Your task to perform on an android device: set default search engine in the chrome app Image 0: 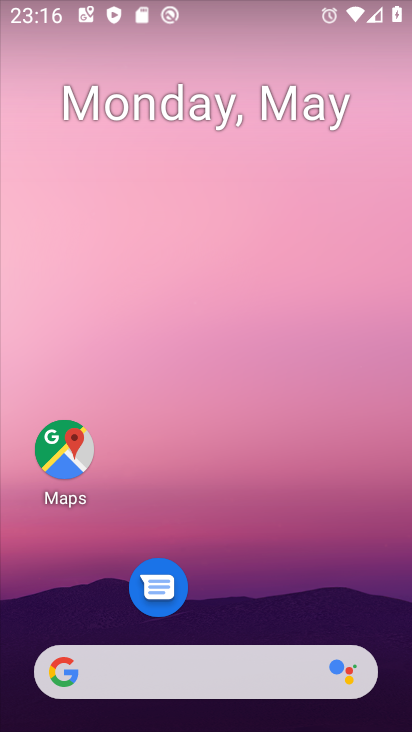
Step 0: drag from (219, 643) to (227, 2)
Your task to perform on an android device: set default search engine in the chrome app Image 1: 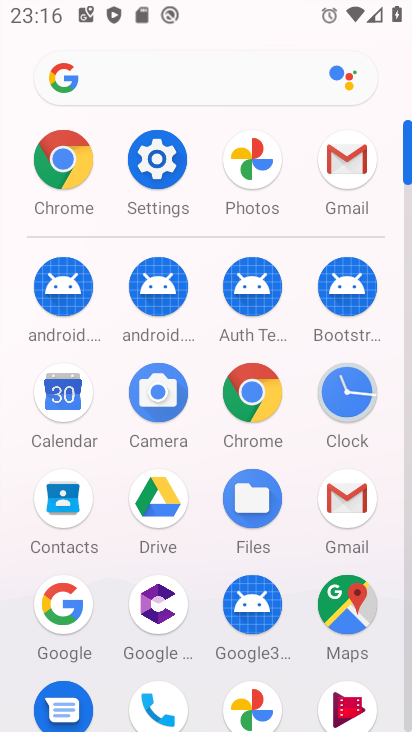
Step 1: click (64, 172)
Your task to perform on an android device: set default search engine in the chrome app Image 2: 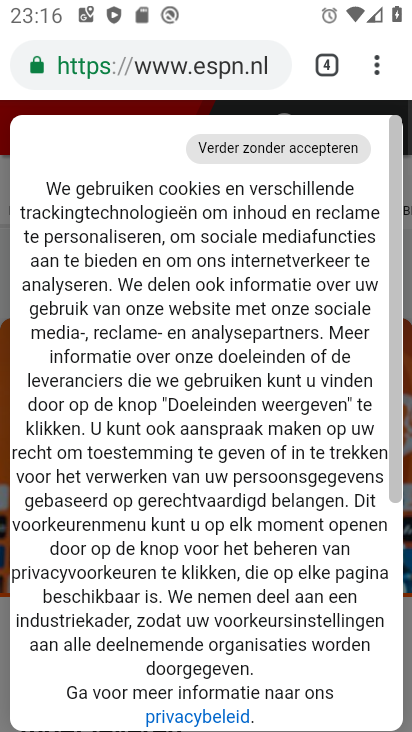
Step 2: click (369, 67)
Your task to perform on an android device: set default search engine in the chrome app Image 3: 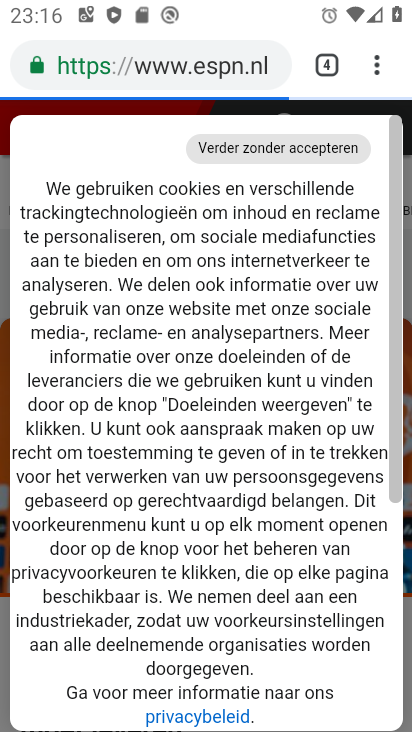
Step 3: drag from (370, 67) to (133, 652)
Your task to perform on an android device: set default search engine in the chrome app Image 4: 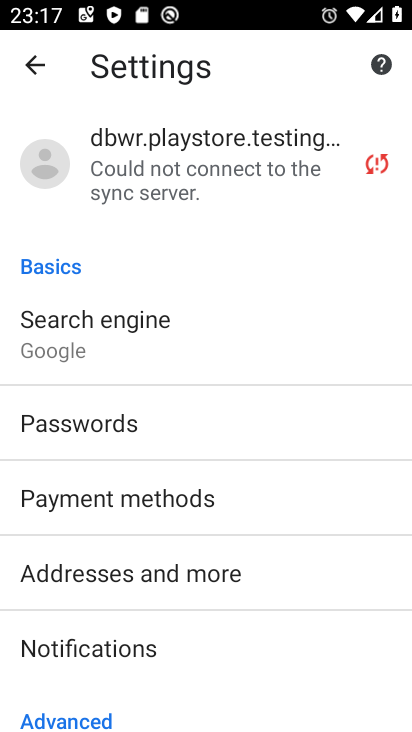
Step 4: click (58, 356)
Your task to perform on an android device: set default search engine in the chrome app Image 5: 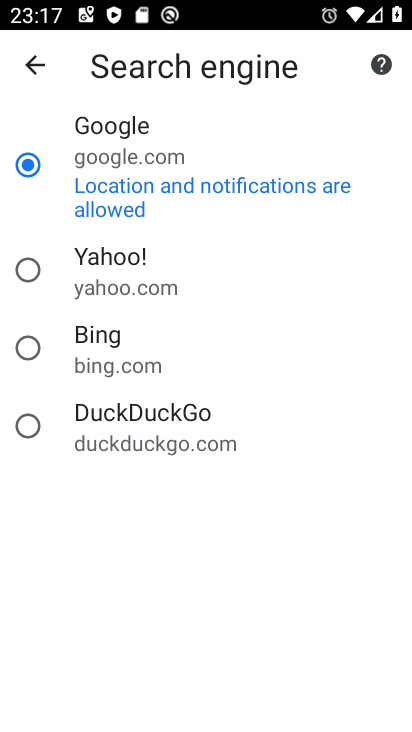
Step 5: task complete